Your task to perform on an android device: open chrome privacy settings Image 0: 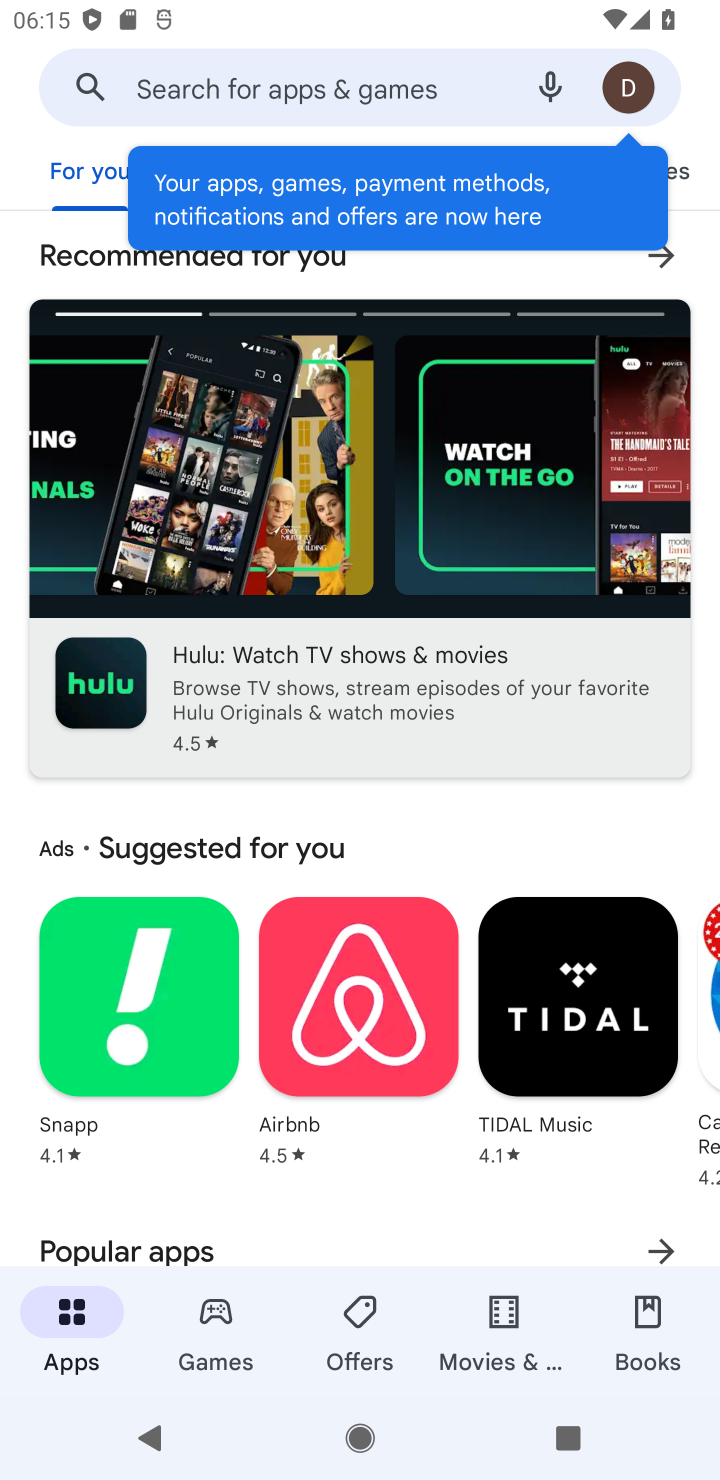
Step 0: press home button
Your task to perform on an android device: open chrome privacy settings Image 1: 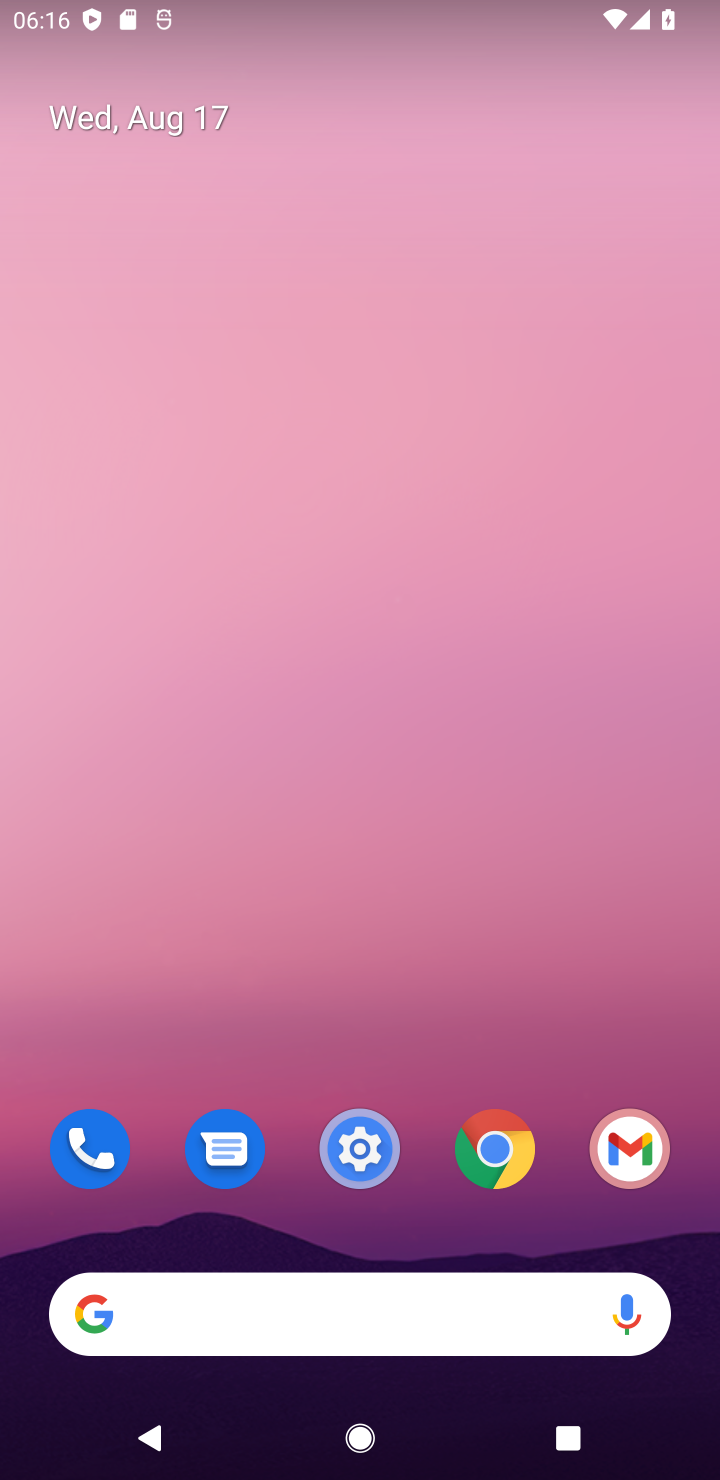
Step 1: click (498, 1154)
Your task to perform on an android device: open chrome privacy settings Image 2: 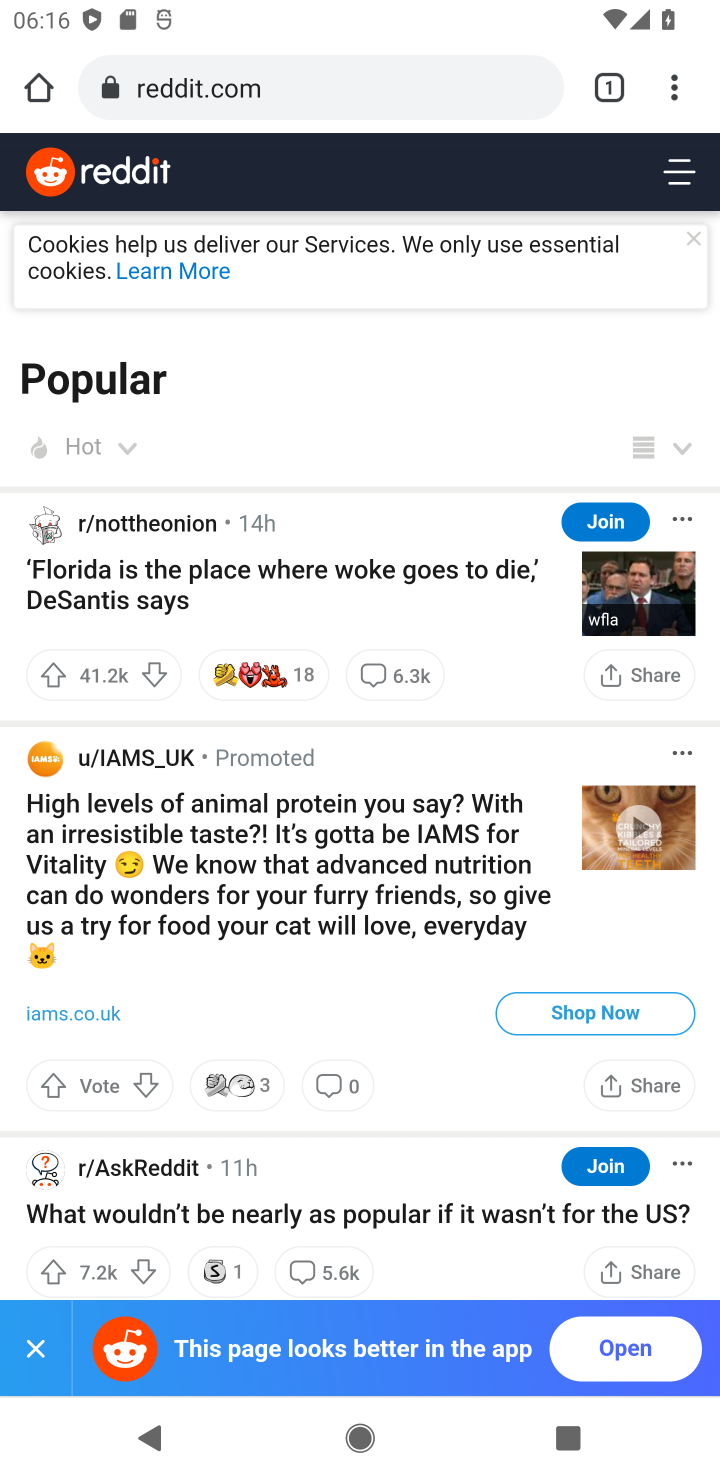
Step 2: click (668, 97)
Your task to perform on an android device: open chrome privacy settings Image 3: 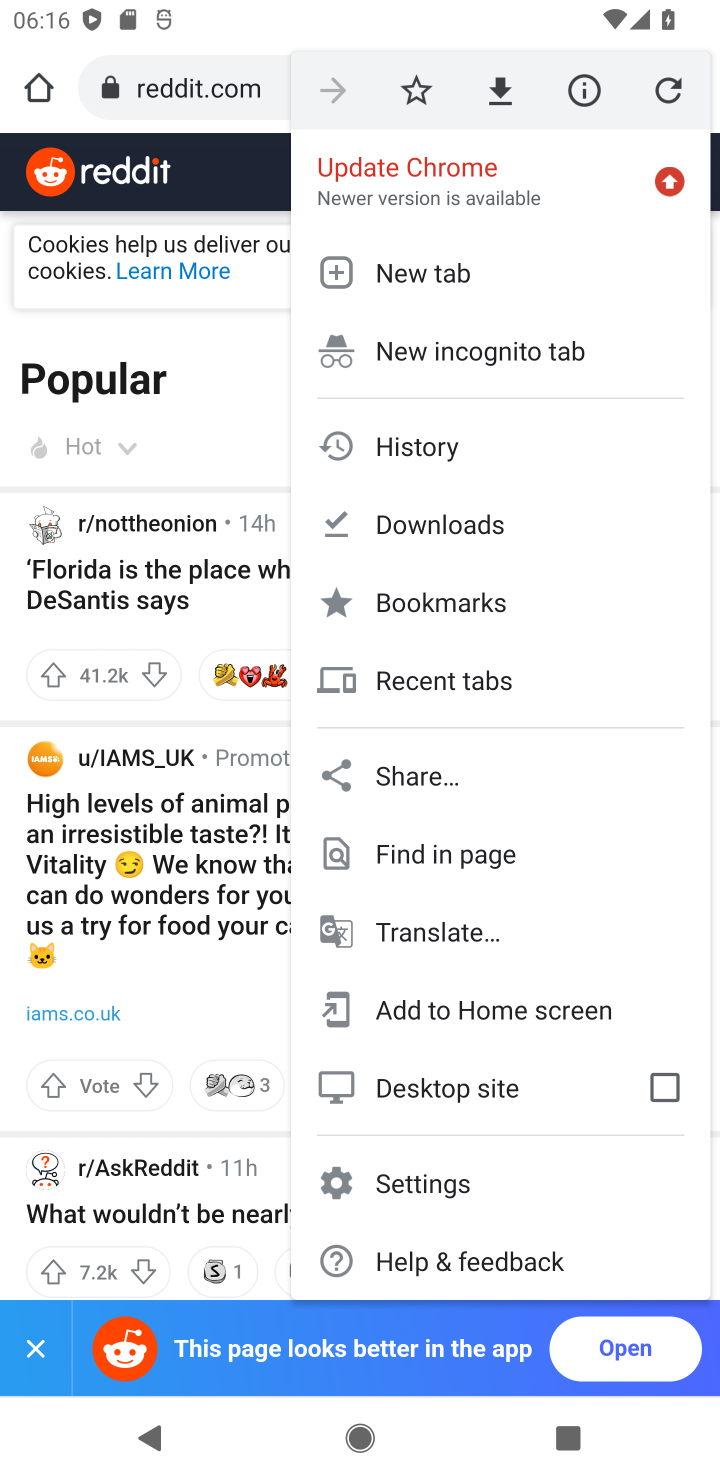
Step 3: click (421, 1183)
Your task to perform on an android device: open chrome privacy settings Image 4: 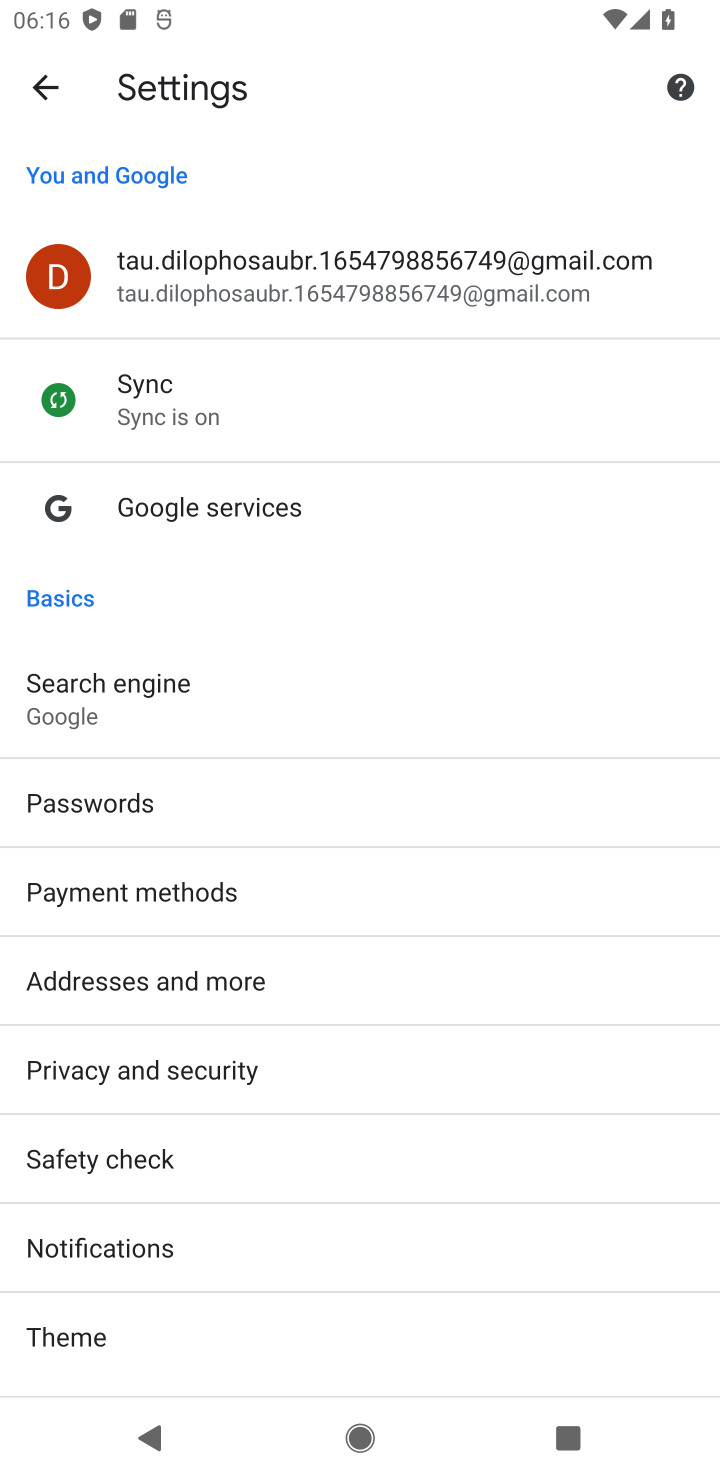
Step 4: click (162, 1061)
Your task to perform on an android device: open chrome privacy settings Image 5: 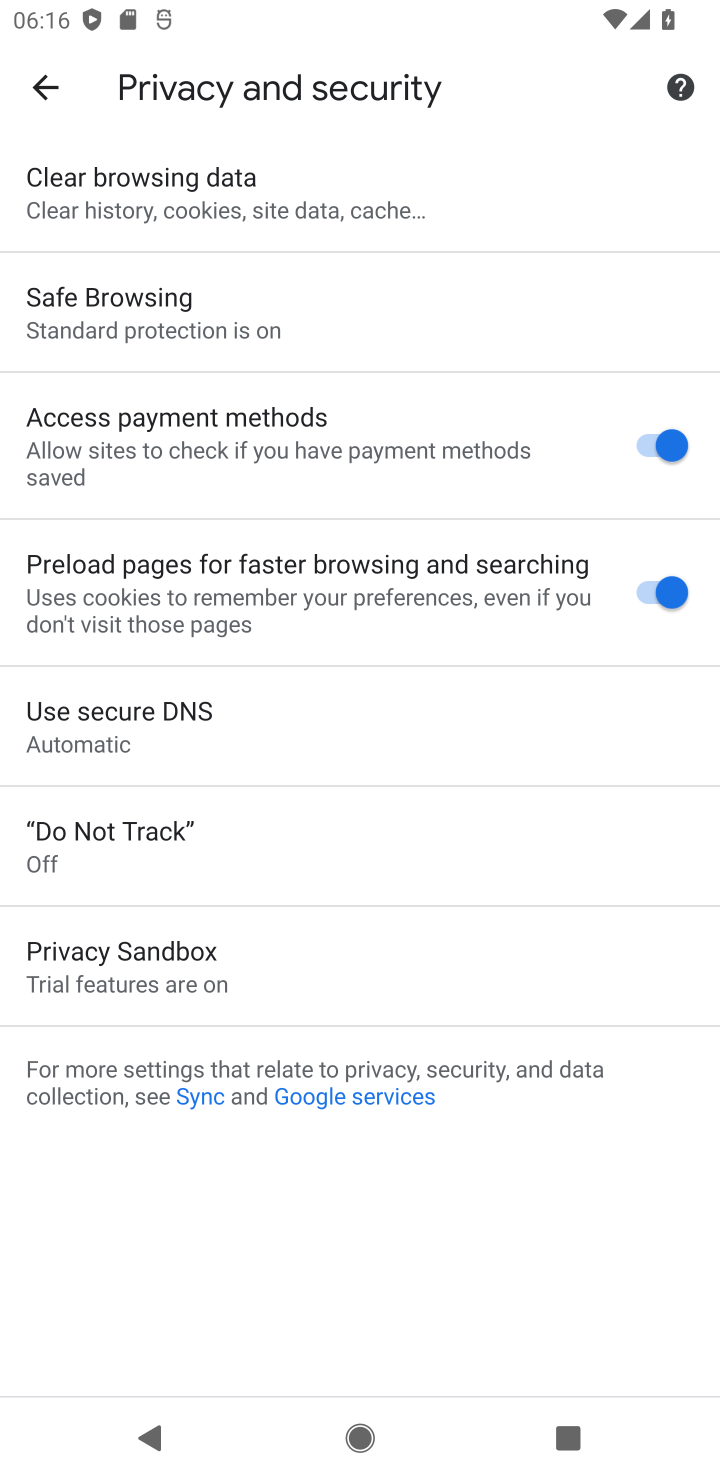
Step 5: task complete